Your task to perform on an android device: Go to calendar. Show me events next week Image 0: 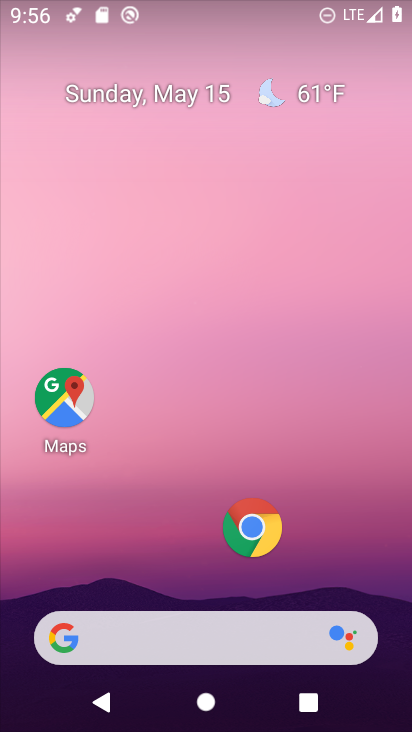
Step 0: drag from (211, 590) to (211, 18)
Your task to perform on an android device: Go to calendar. Show me events next week Image 1: 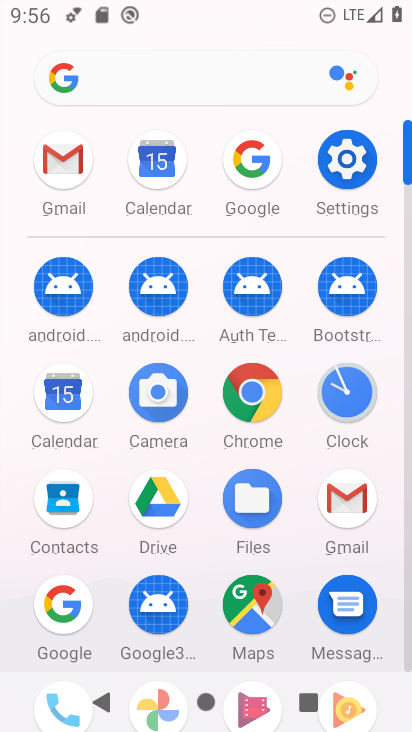
Step 1: click (65, 392)
Your task to perform on an android device: Go to calendar. Show me events next week Image 2: 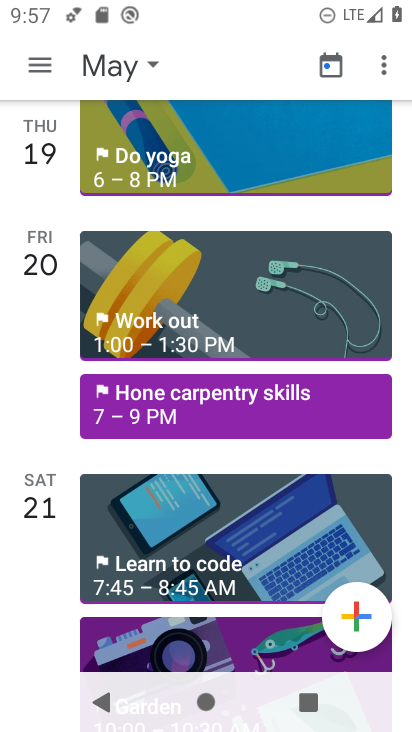
Step 2: click (41, 64)
Your task to perform on an android device: Go to calendar. Show me events next week Image 3: 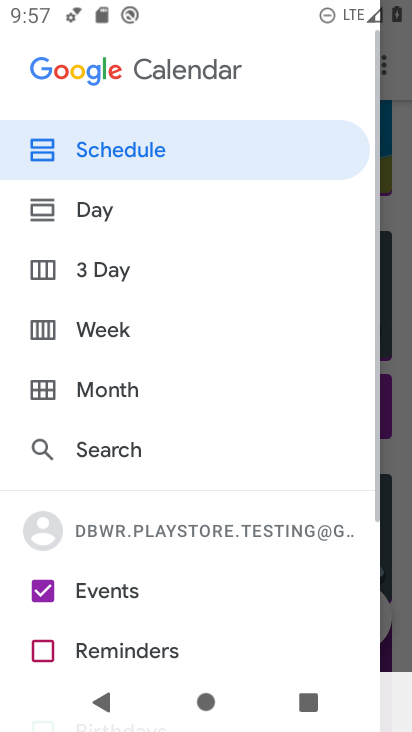
Step 3: click (100, 328)
Your task to perform on an android device: Go to calendar. Show me events next week Image 4: 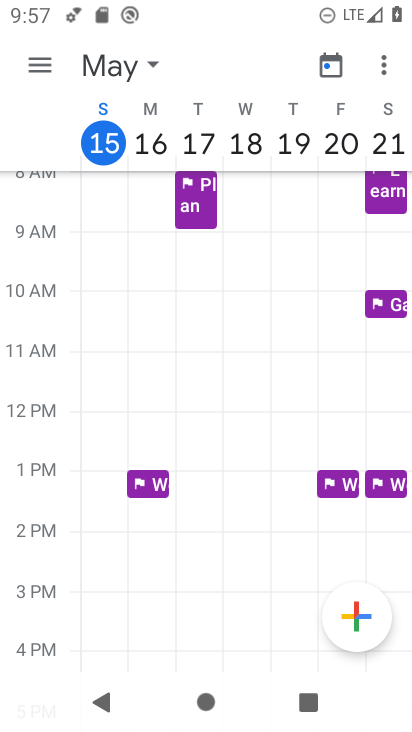
Step 4: drag from (380, 147) to (2, 152)
Your task to perform on an android device: Go to calendar. Show me events next week Image 5: 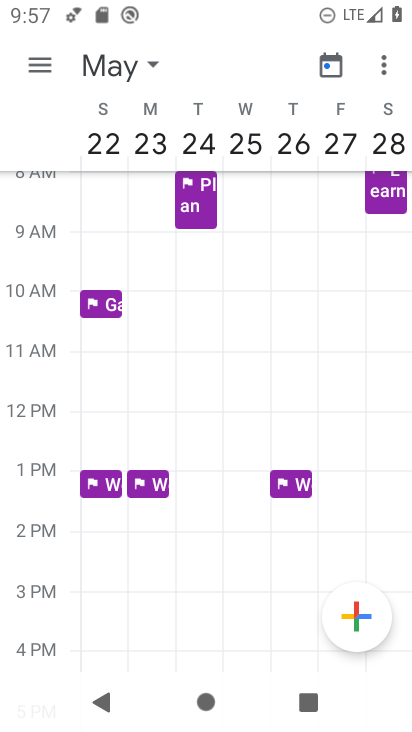
Step 5: click (109, 140)
Your task to perform on an android device: Go to calendar. Show me events next week Image 6: 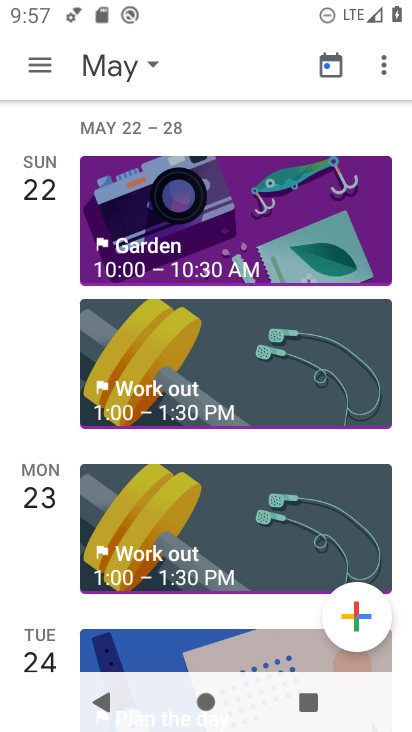
Step 6: task complete